Your task to perform on an android device: turn off translation in the chrome app Image 0: 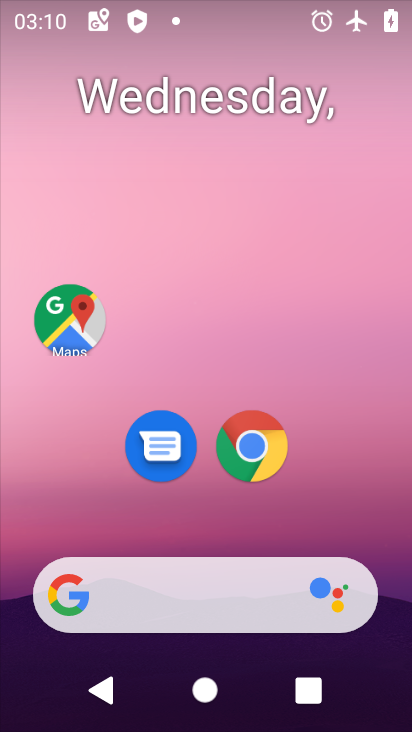
Step 0: click (248, 451)
Your task to perform on an android device: turn off translation in the chrome app Image 1: 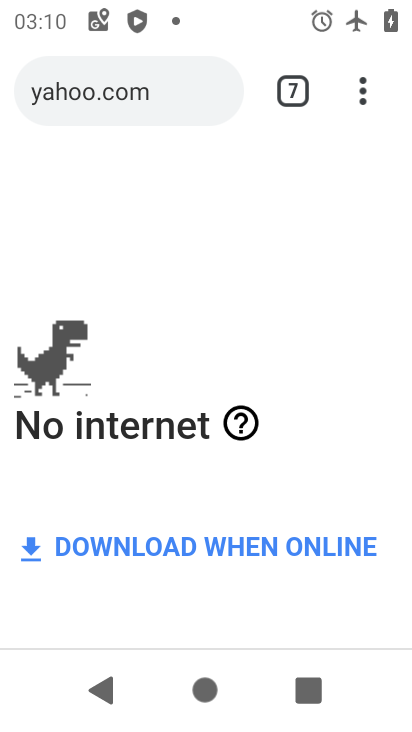
Step 1: drag from (362, 86) to (123, 482)
Your task to perform on an android device: turn off translation in the chrome app Image 2: 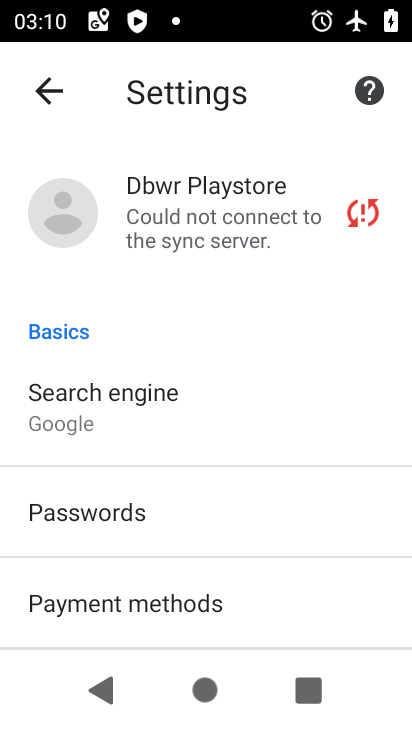
Step 2: drag from (227, 627) to (265, 342)
Your task to perform on an android device: turn off translation in the chrome app Image 3: 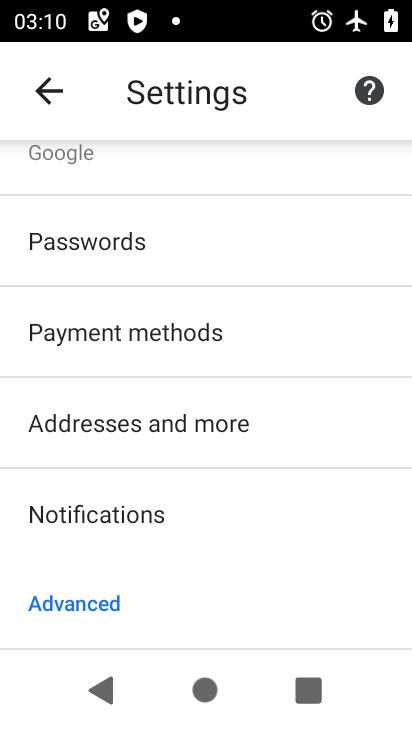
Step 3: drag from (266, 585) to (283, 348)
Your task to perform on an android device: turn off translation in the chrome app Image 4: 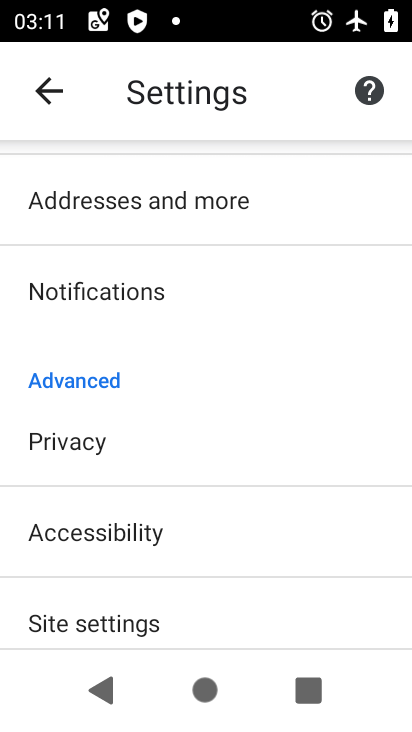
Step 4: drag from (257, 554) to (273, 324)
Your task to perform on an android device: turn off translation in the chrome app Image 5: 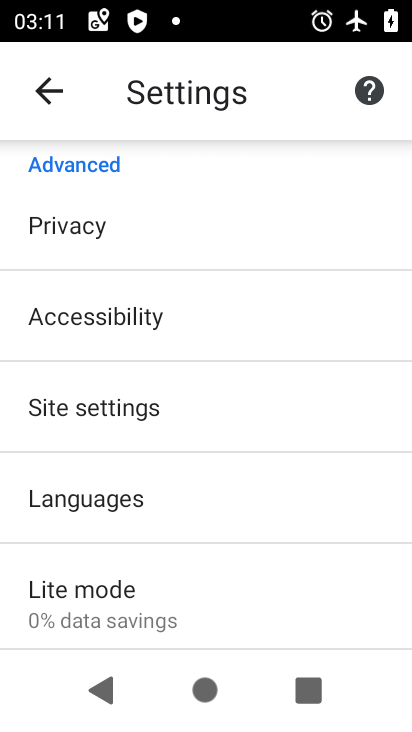
Step 5: click (240, 501)
Your task to perform on an android device: turn off translation in the chrome app Image 6: 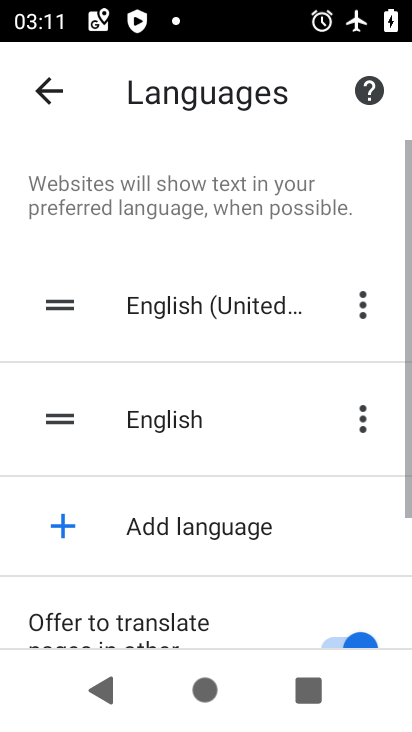
Step 6: drag from (233, 584) to (253, 293)
Your task to perform on an android device: turn off translation in the chrome app Image 7: 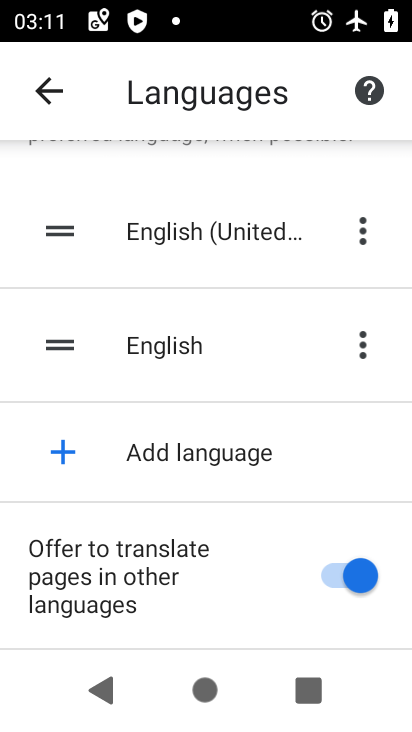
Step 7: click (337, 576)
Your task to perform on an android device: turn off translation in the chrome app Image 8: 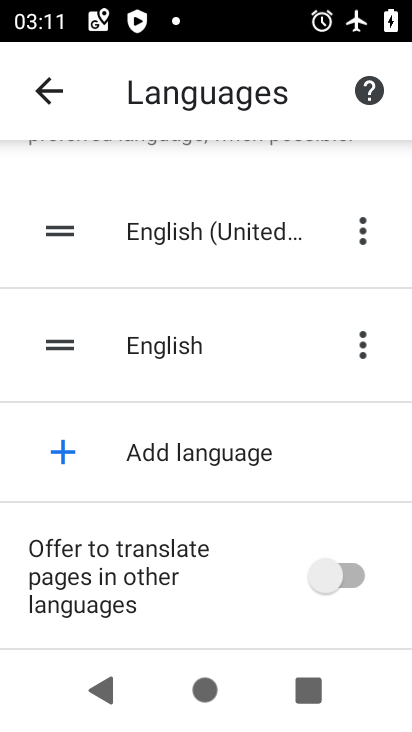
Step 8: task complete